Your task to perform on an android device: find snoozed emails in the gmail app Image 0: 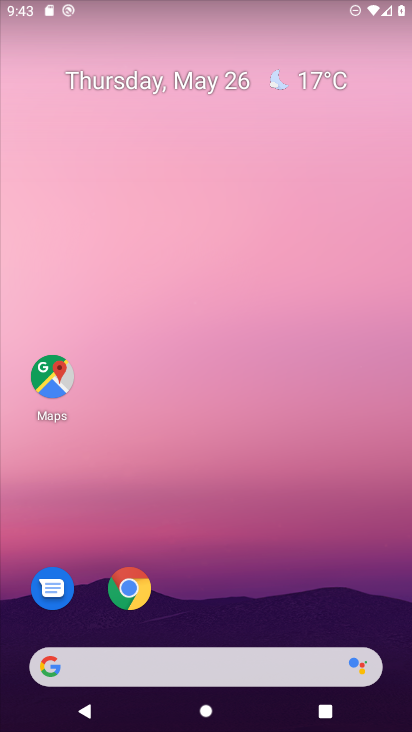
Step 0: drag from (389, 619) to (305, 84)
Your task to perform on an android device: find snoozed emails in the gmail app Image 1: 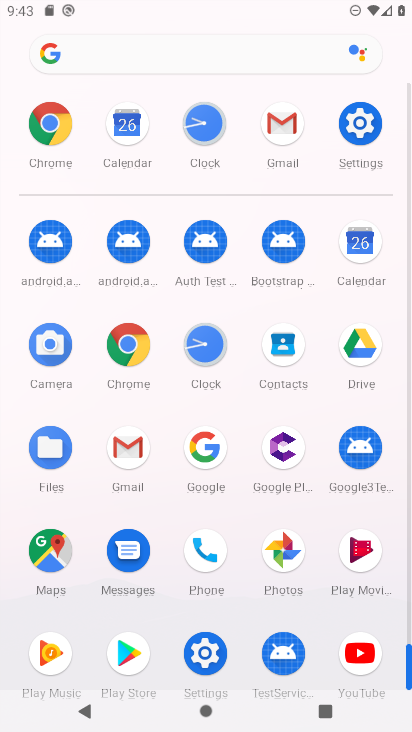
Step 1: click (128, 448)
Your task to perform on an android device: find snoozed emails in the gmail app Image 2: 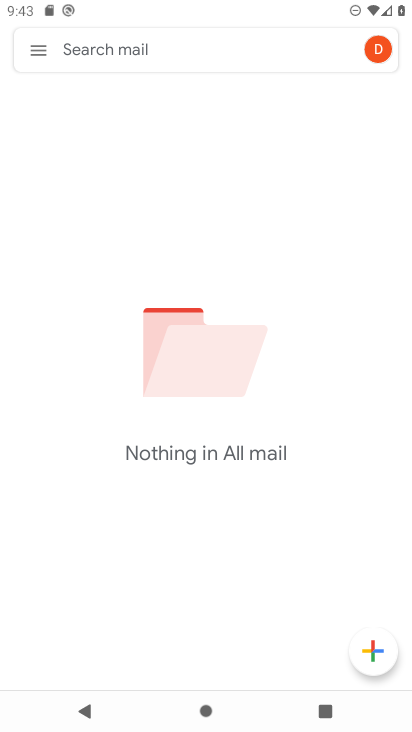
Step 2: click (39, 51)
Your task to perform on an android device: find snoozed emails in the gmail app Image 3: 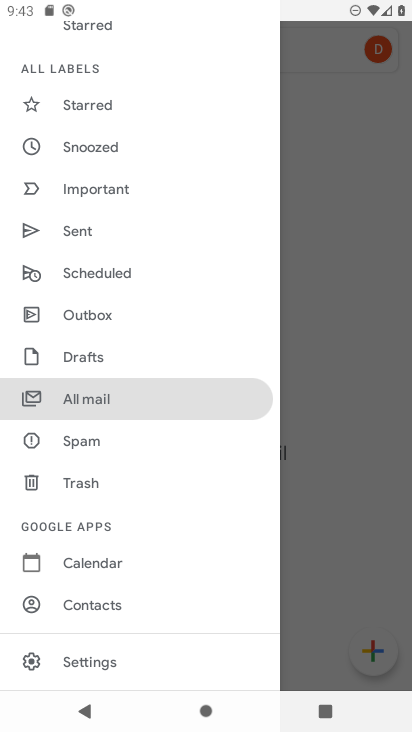
Step 3: click (81, 140)
Your task to perform on an android device: find snoozed emails in the gmail app Image 4: 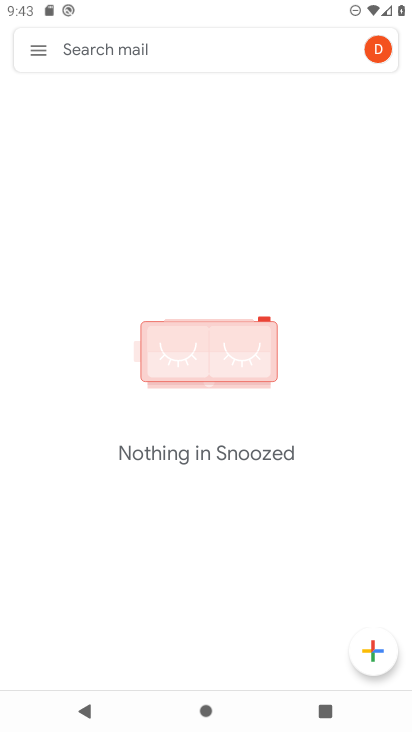
Step 4: task complete